Your task to perform on an android device: delete browsing data in the chrome app Image 0: 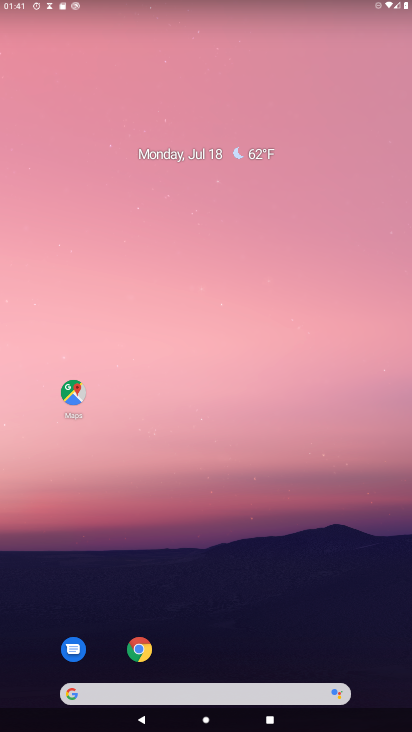
Step 0: click (138, 657)
Your task to perform on an android device: delete browsing data in the chrome app Image 1: 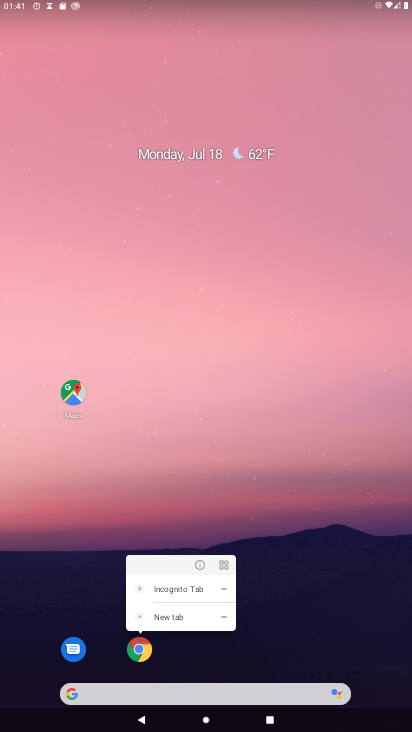
Step 1: click (137, 654)
Your task to perform on an android device: delete browsing data in the chrome app Image 2: 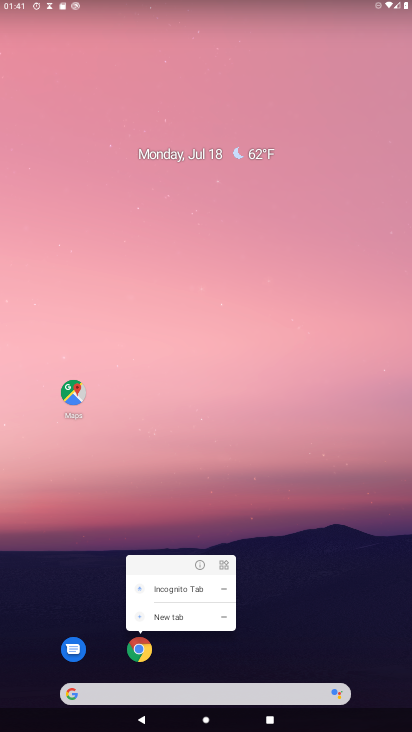
Step 2: click (139, 655)
Your task to perform on an android device: delete browsing data in the chrome app Image 3: 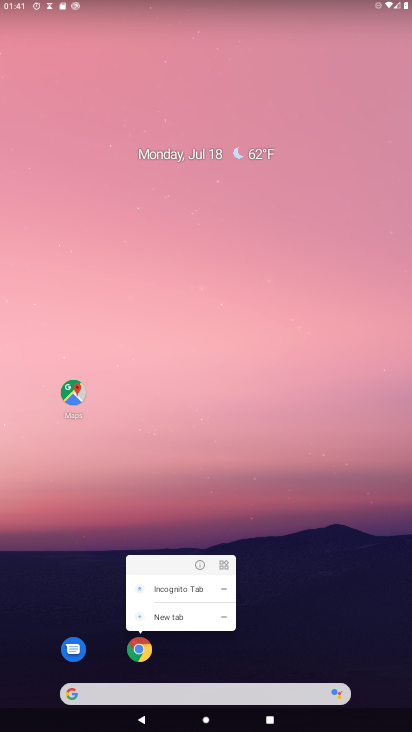
Step 3: click (141, 648)
Your task to perform on an android device: delete browsing data in the chrome app Image 4: 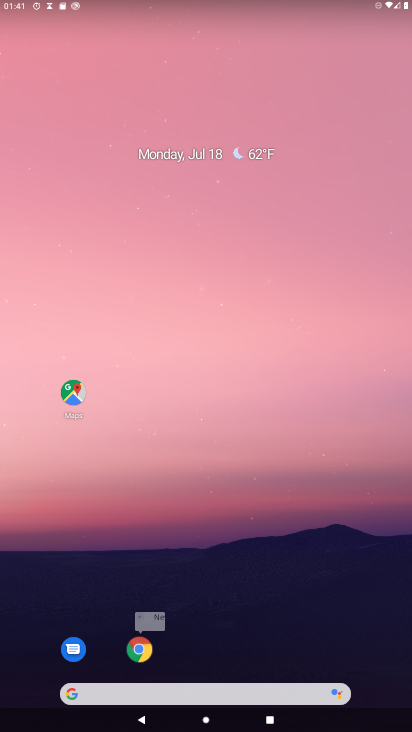
Step 4: click (142, 648)
Your task to perform on an android device: delete browsing data in the chrome app Image 5: 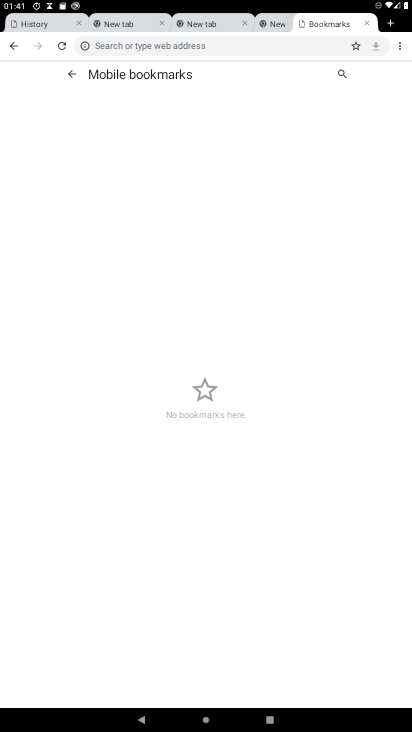
Step 5: click (397, 41)
Your task to perform on an android device: delete browsing data in the chrome app Image 6: 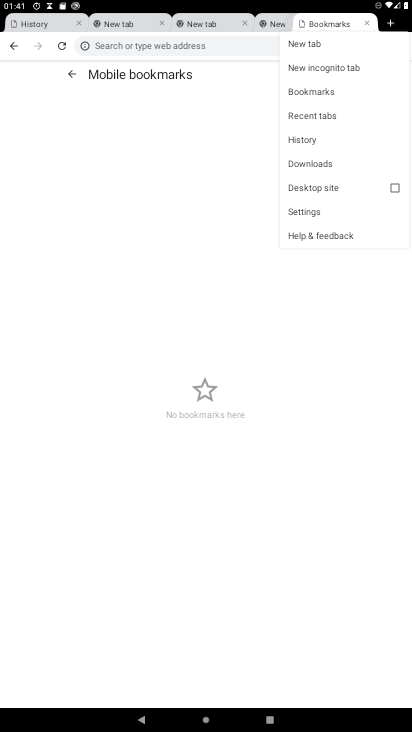
Step 6: click (304, 143)
Your task to perform on an android device: delete browsing data in the chrome app Image 7: 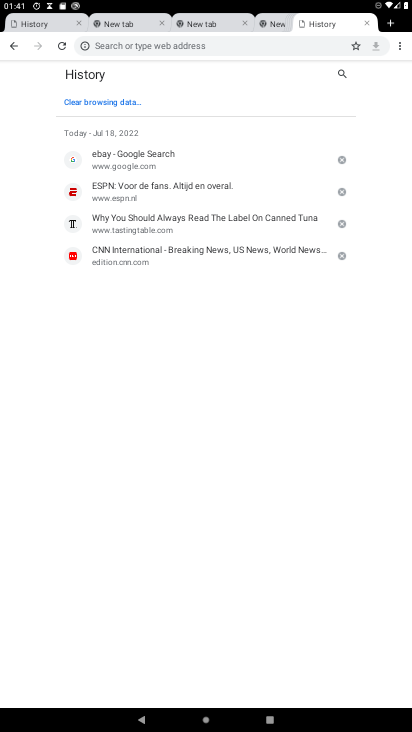
Step 7: click (102, 101)
Your task to perform on an android device: delete browsing data in the chrome app Image 8: 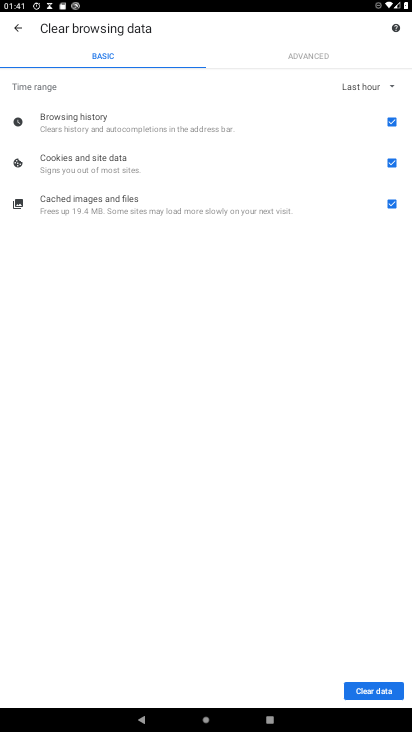
Step 8: click (394, 159)
Your task to perform on an android device: delete browsing data in the chrome app Image 9: 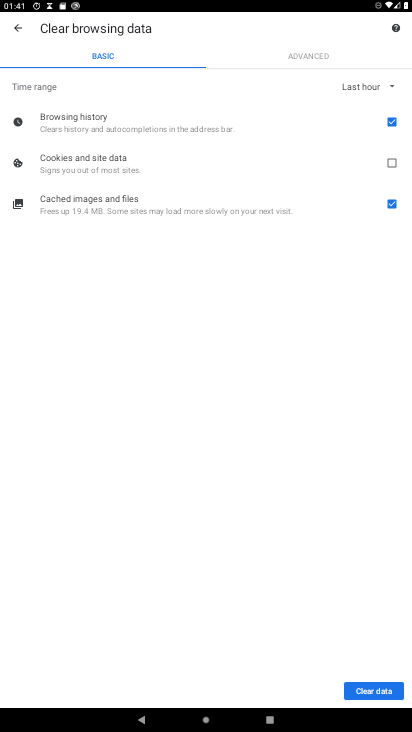
Step 9: click (394, 202)
Your task to perform on an android device: delete browsing data in the chrome app Image 10: 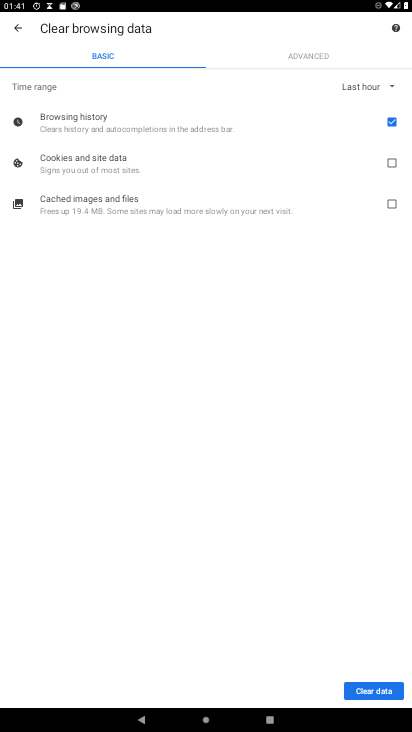
Step 10: click (382, 687)
Your task to perform on an android device: delete browsing data in the chrome app Image 11: 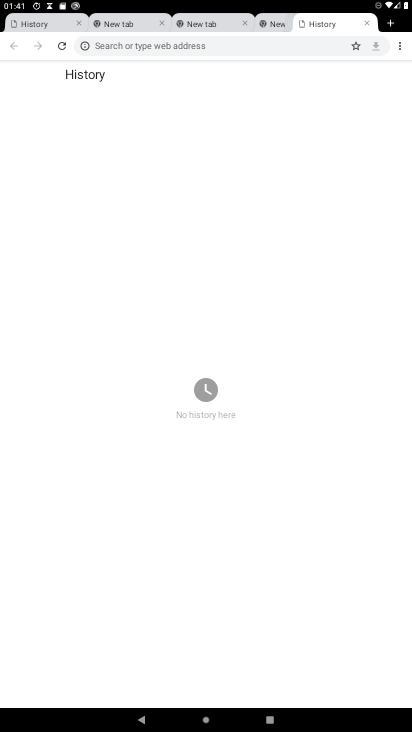
Step 11: task complete